Your task to perform on an android device: make emails show in primary in the gmail app Image 0: 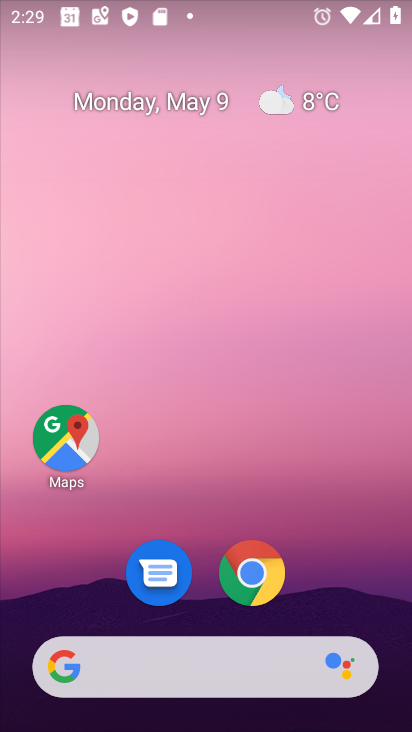
Step 0: drag from (193, 668) to (361, 86)
Your task to perform on an android device: make emails show in primary in the gmail app Image 1: 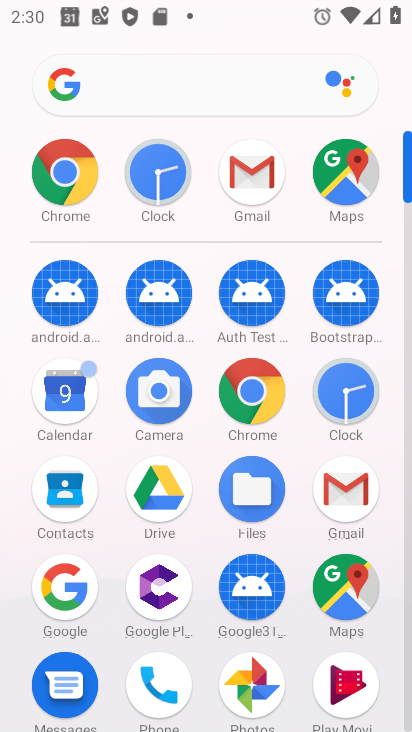
Step 1: click (262, 183)
Your task to perform on an android device: make emails show in primary in the gmail app Image 2: 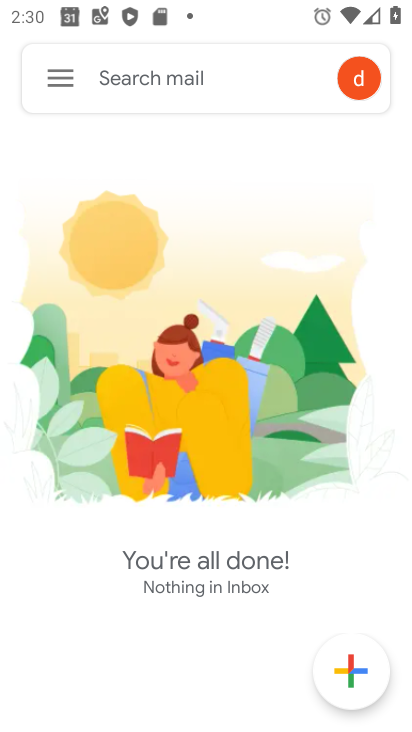
Step 2: click (57, 66)
Your task to perform on an android device: make emails show in primary in the gmail app Image 3: 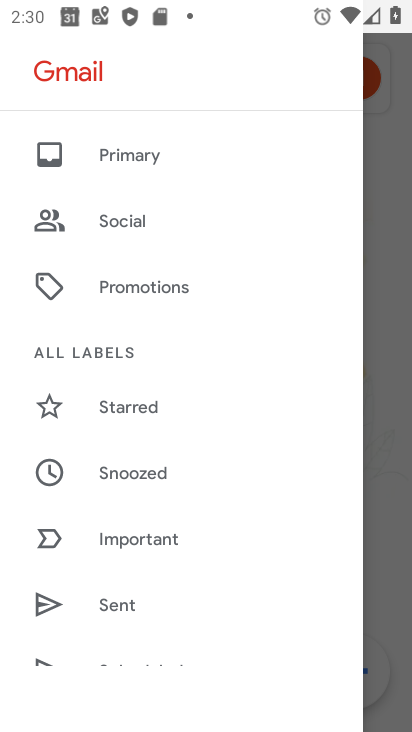
Step 3: drag from (164, 589) to (204, 241)
Your task to perform on an android device: make emails show in primary in the gmail app Image 4: 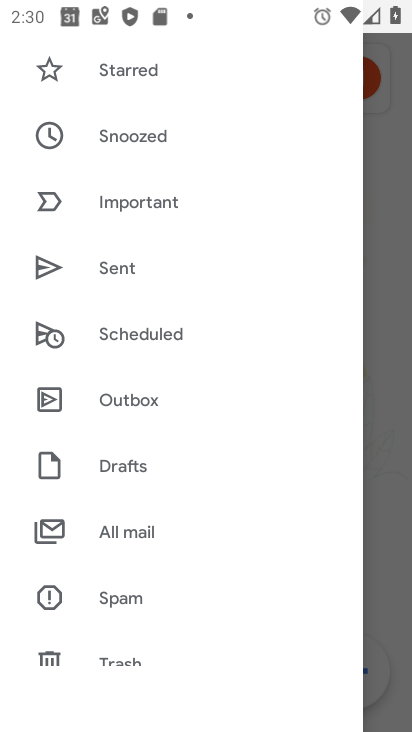
Step 4: drag from (216, 622) to (261, 172)
Your task to perform on an android device: make emails show in primary in the gmail app Image 5: 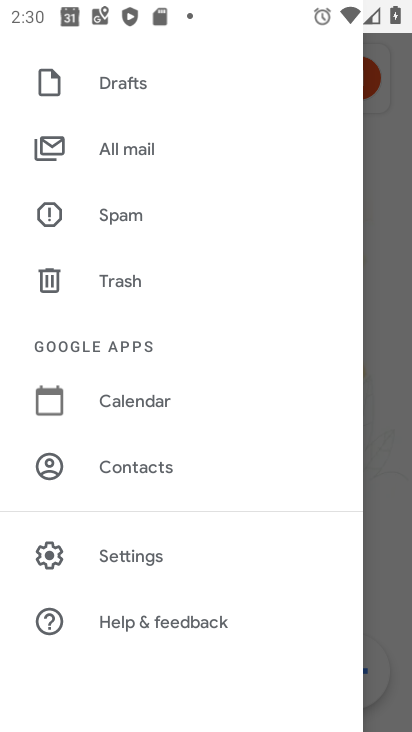
Step 5: click (134, 557)
Your task to perform on an android device: make emails show in primary in the gmail app Image 6: 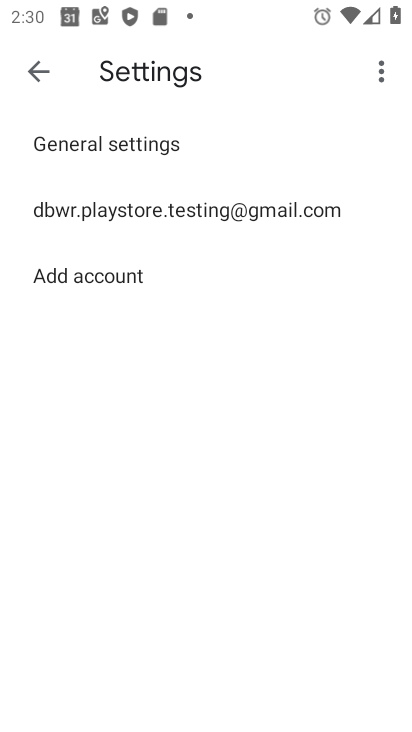
Step 6: click (213, 212)
Your task to perform on an android device: make emails show in primary in the gmail app Image 7: 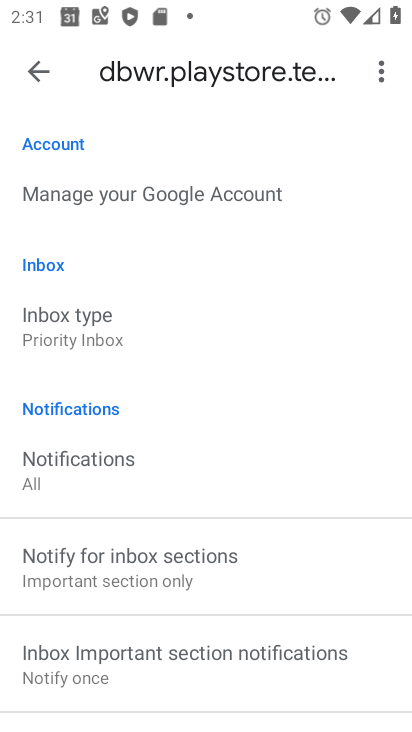
Step 7: task complete